Your task to perform on an android device: uninstall "DoorDash - Food Delivery" Image 0: 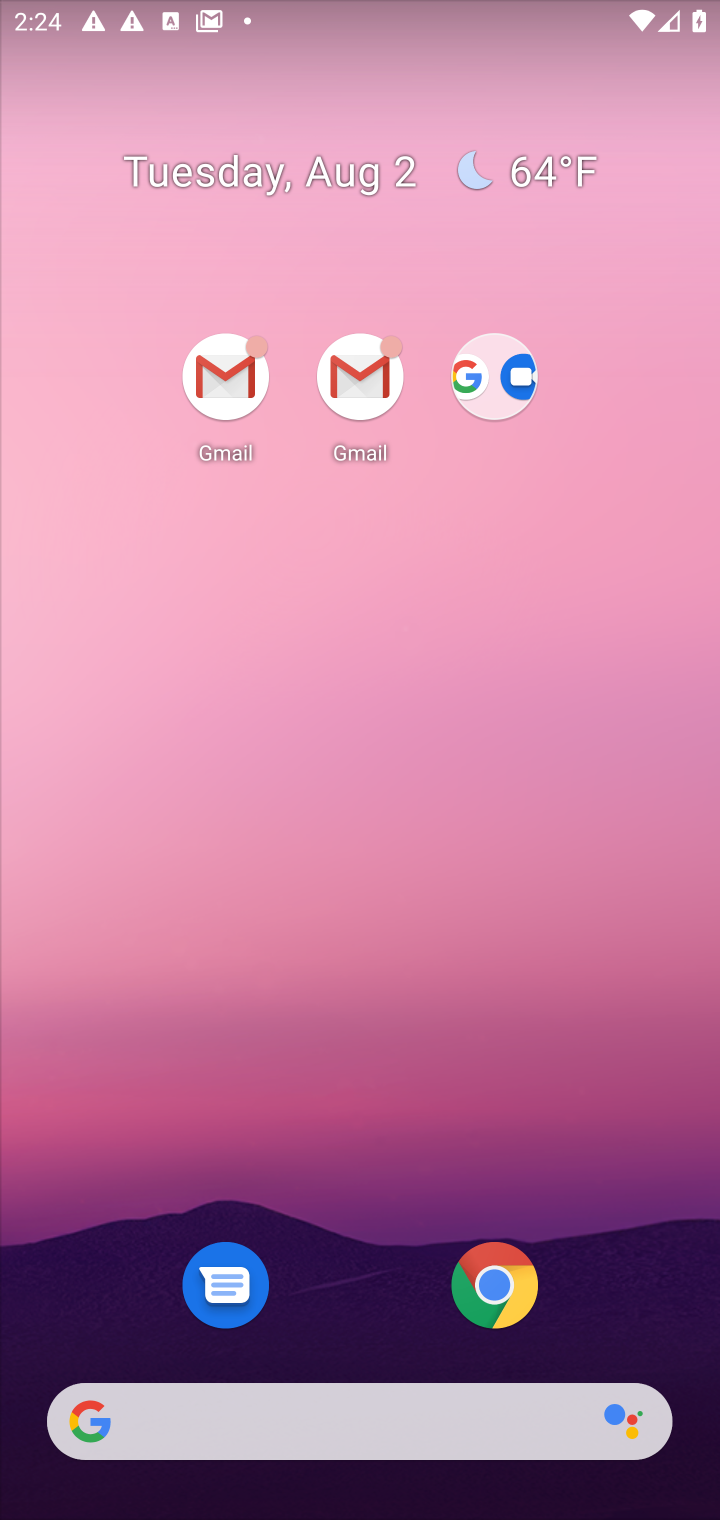
Step 0: drag from (357, 1334) to (258, 185)
Your task to perform on an android device: uninstall "DoorDash - Food Delivery" Image 1: 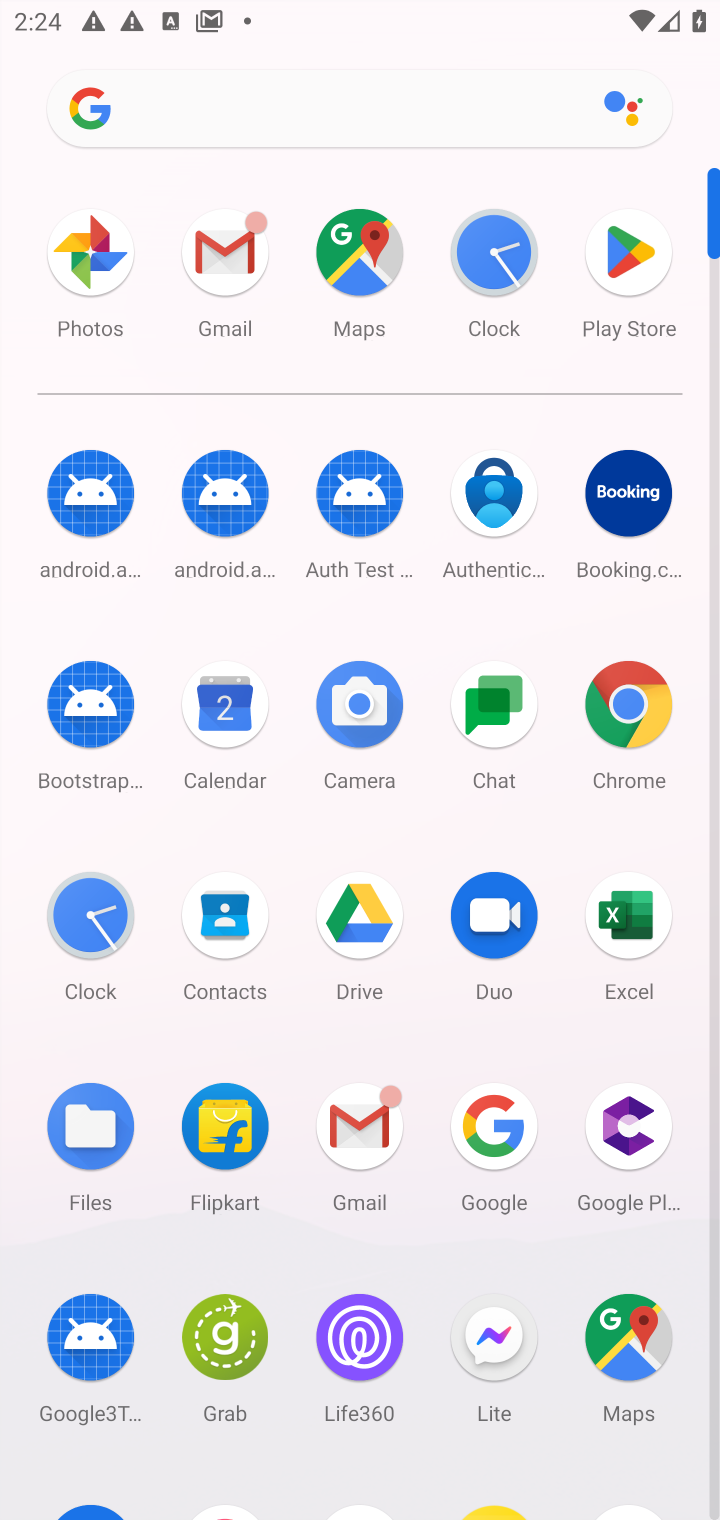
Step 1: drag from (441, 1247) to (403, 340)
Your task to perform on an android device: uninstall "DoorDash - Food Delivery" Image 2: 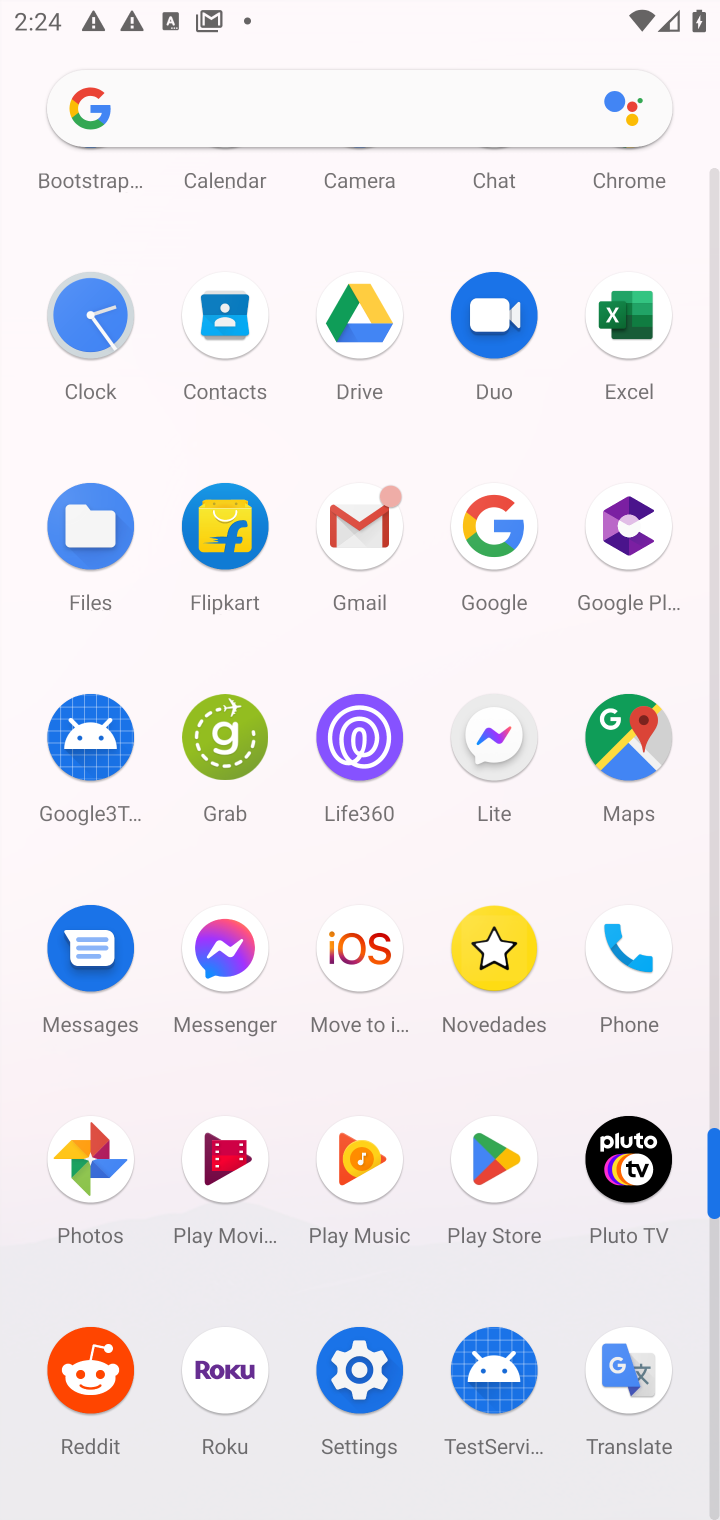
Step 2: click (488, 1169)
Your task to perform on an android device: uninstall "DoorDash - Food Delivery" Image 3: 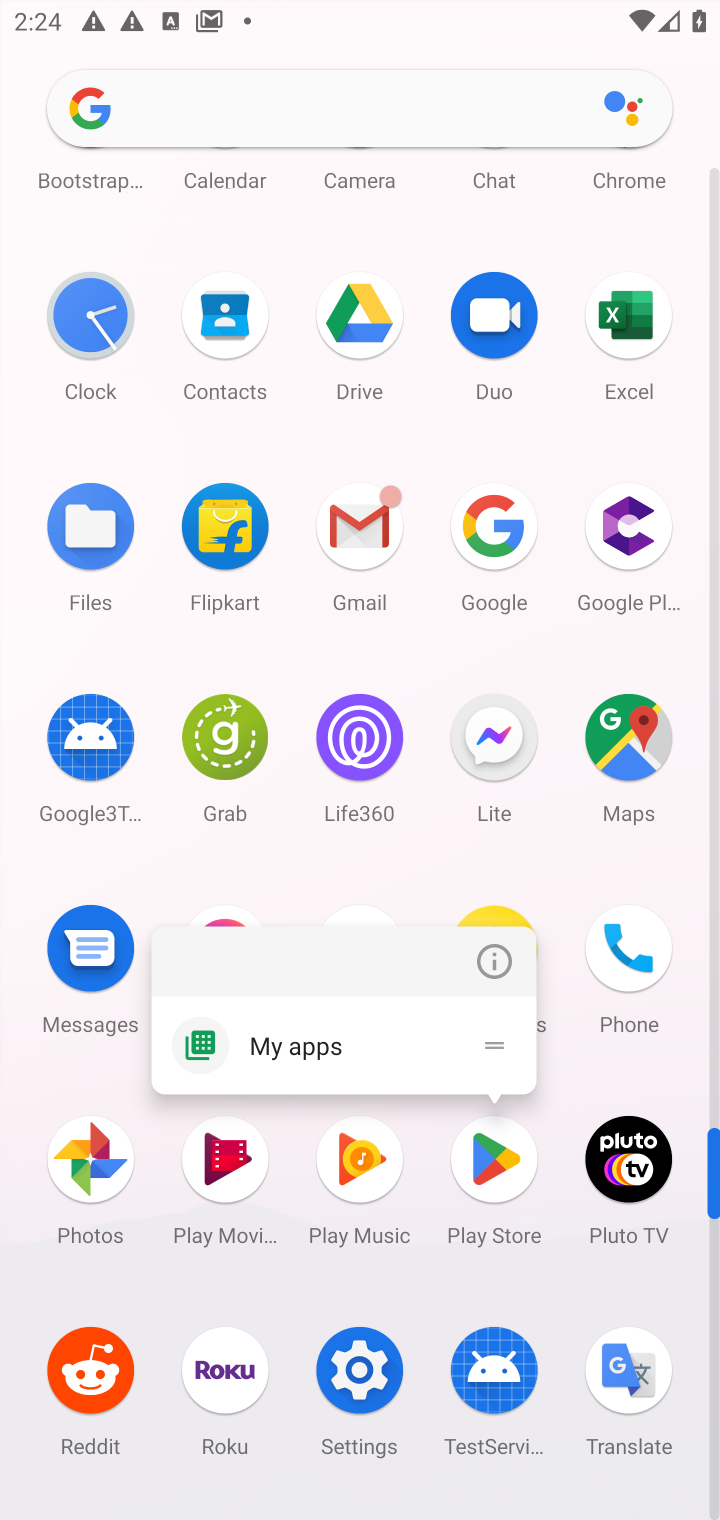
Step 3: click (478, 1162)
Your task to perform on an android device: uninstall "DoorDash - Food Delivery" Image 4: 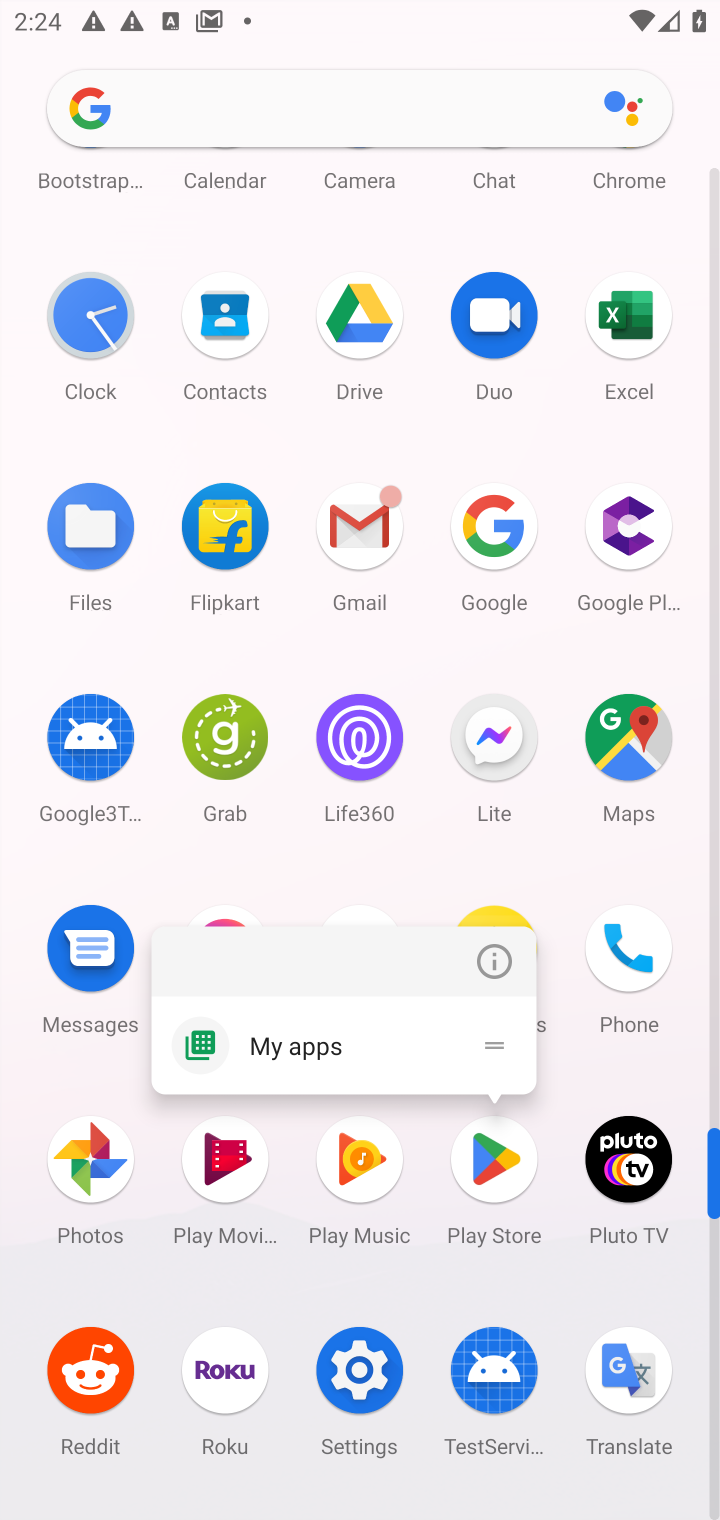
Step 4: click (480, 1160)
Your task to perform on an android device: uninstall "DoorDash - Food Delivery" Image 5: 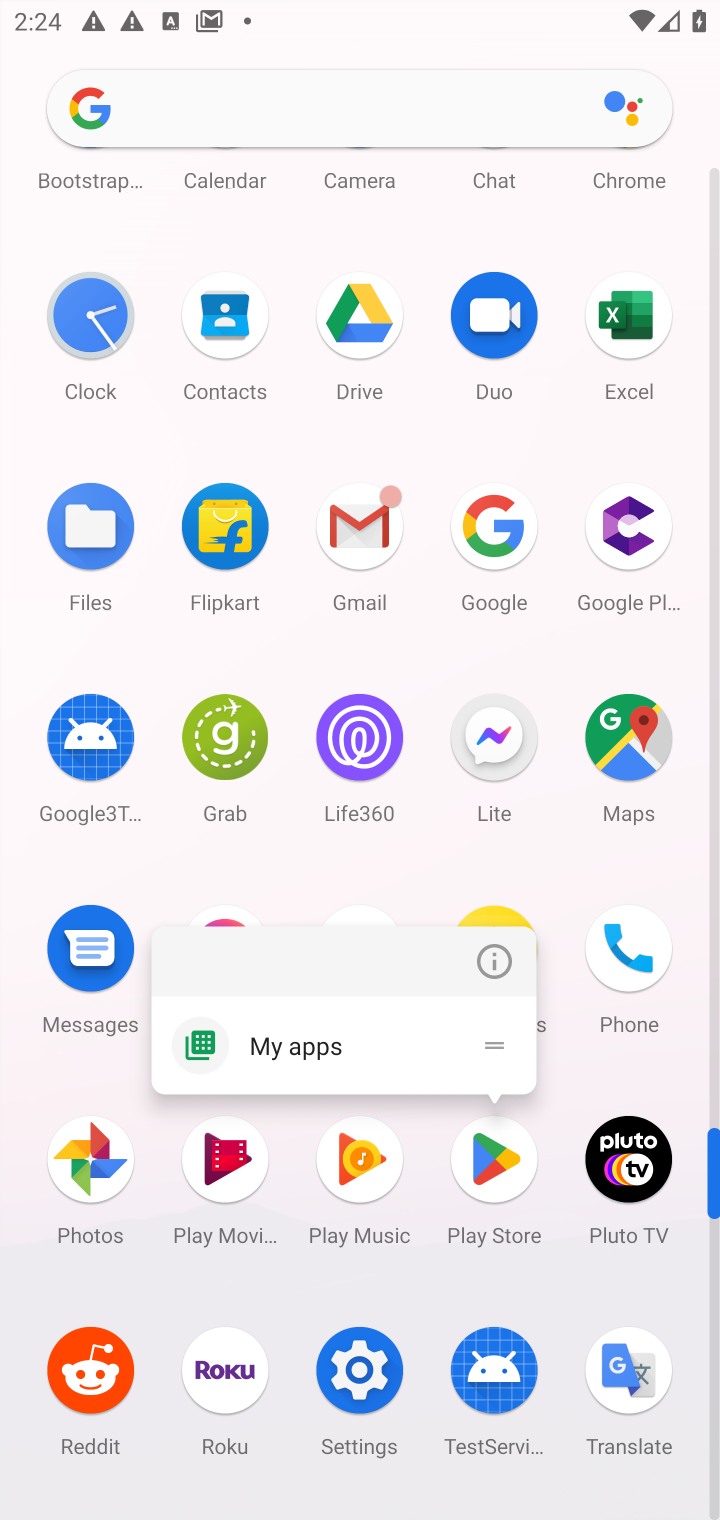
Step 5: click (494, 1161)
Your task to perform on an android device: uninstall "DoorDash - Food Delivery" Image 6: 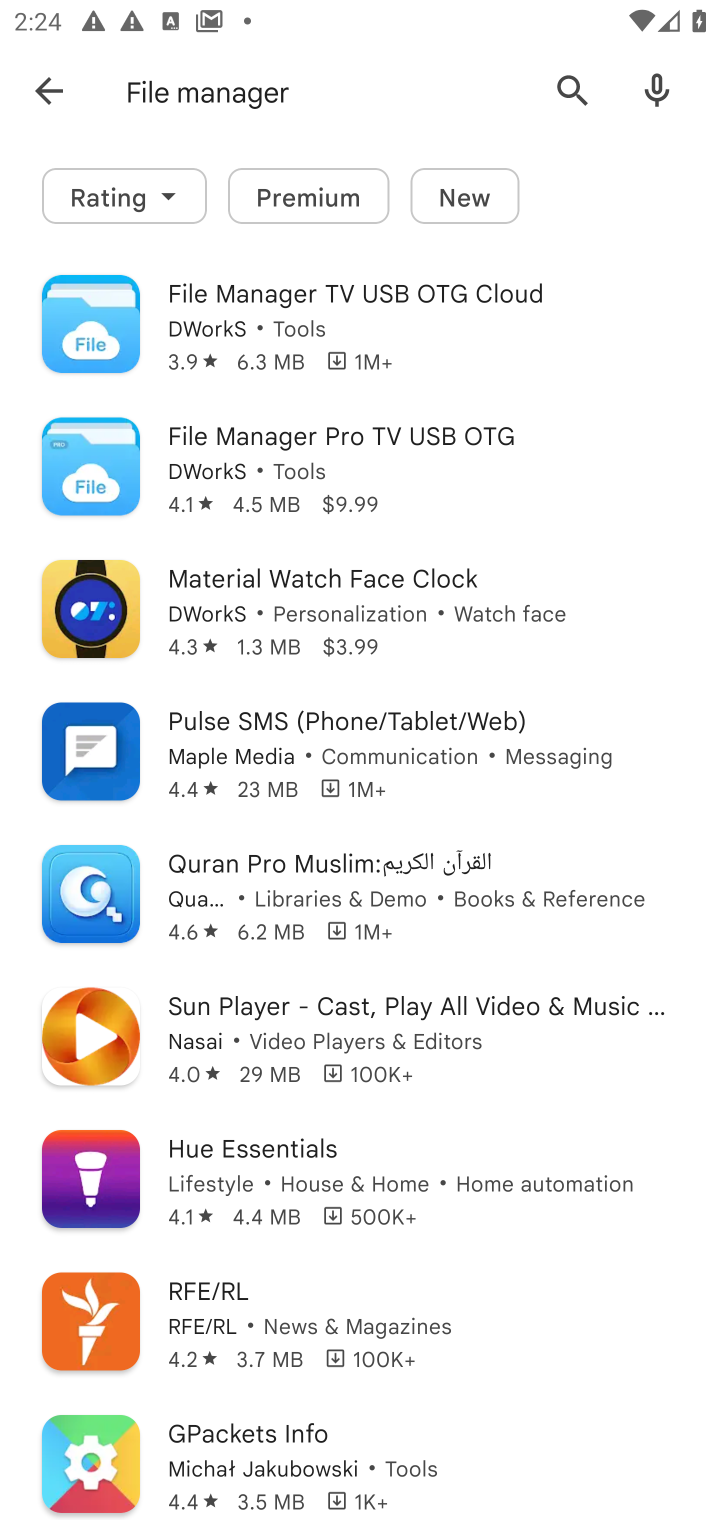
Step 6: click (218, 81)
Your task to perform on an android device: uninstall "DoorDash - Food Delivery" Image 7: 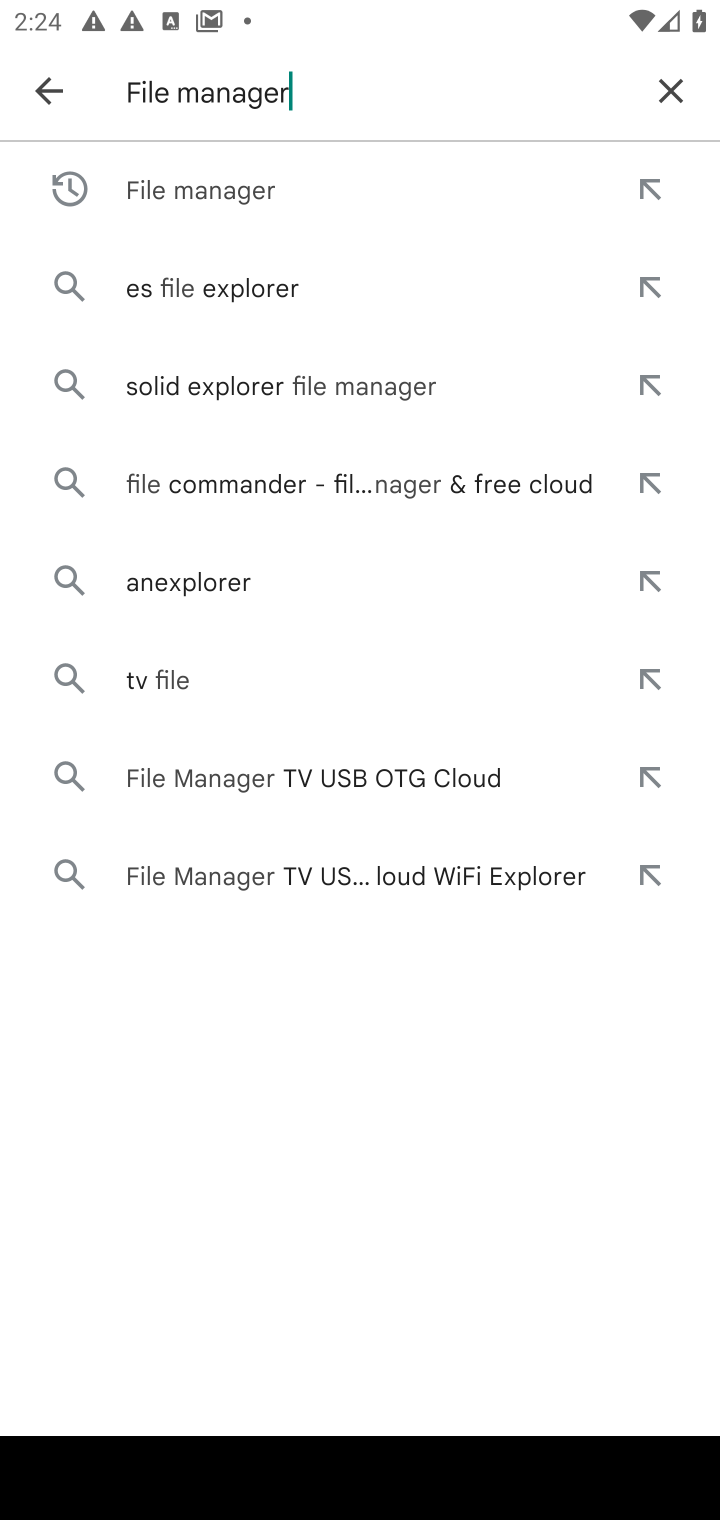
Step 7: click (670, 80)
Your task to perform on an android device: uninstall "DoorDash - Food Delivery" Image 8: 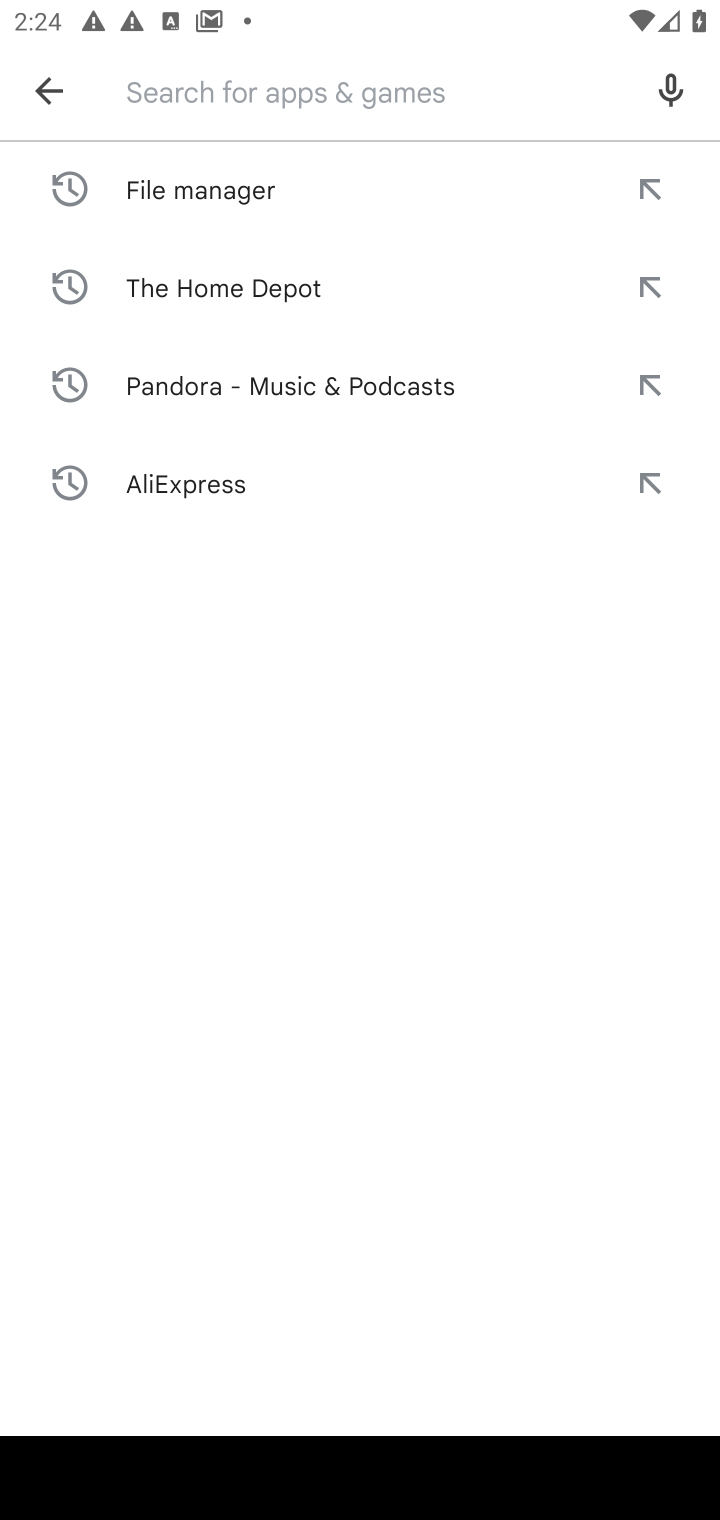
Step 8: type ""
Your task to perform on an android device: uninstall "DoorDash - Food Delivery" Image 9: 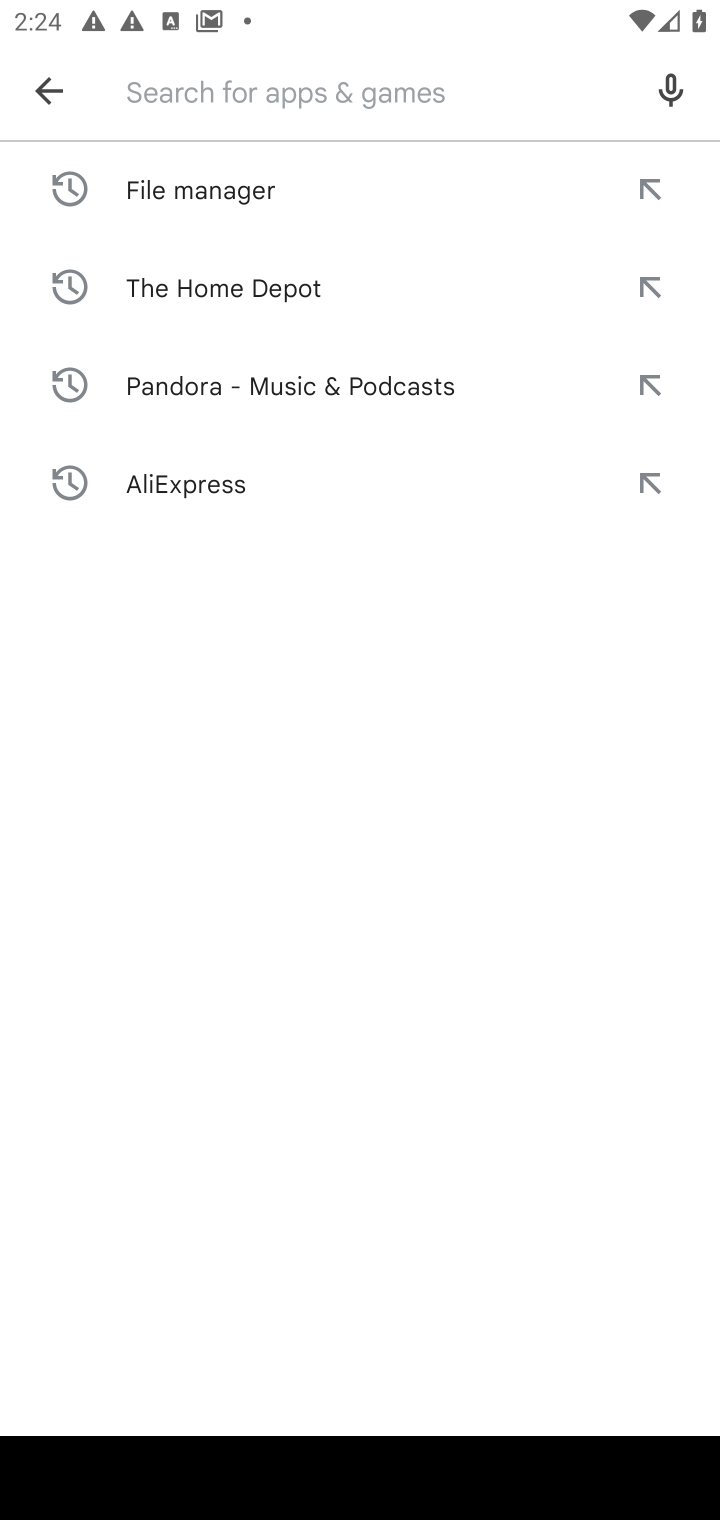
Step 9: type "DoorDash - Food Delivery"
Your task to perform on an android device: uninstall "DoorDash - Food Delivery" Image 10: 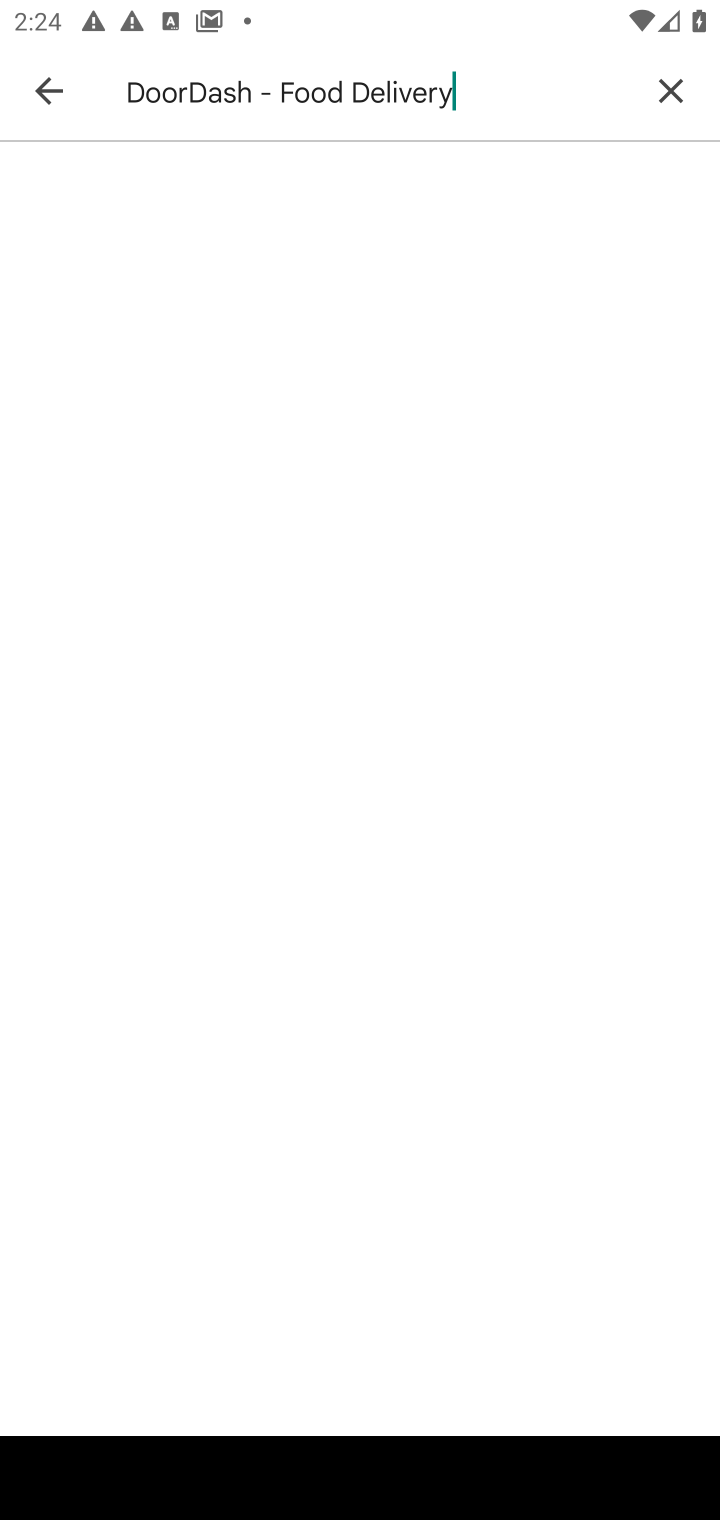
Step 10: press enter
Your task to perform on an android device: uninstall "DoorDash - Food Delivery" Image 11: 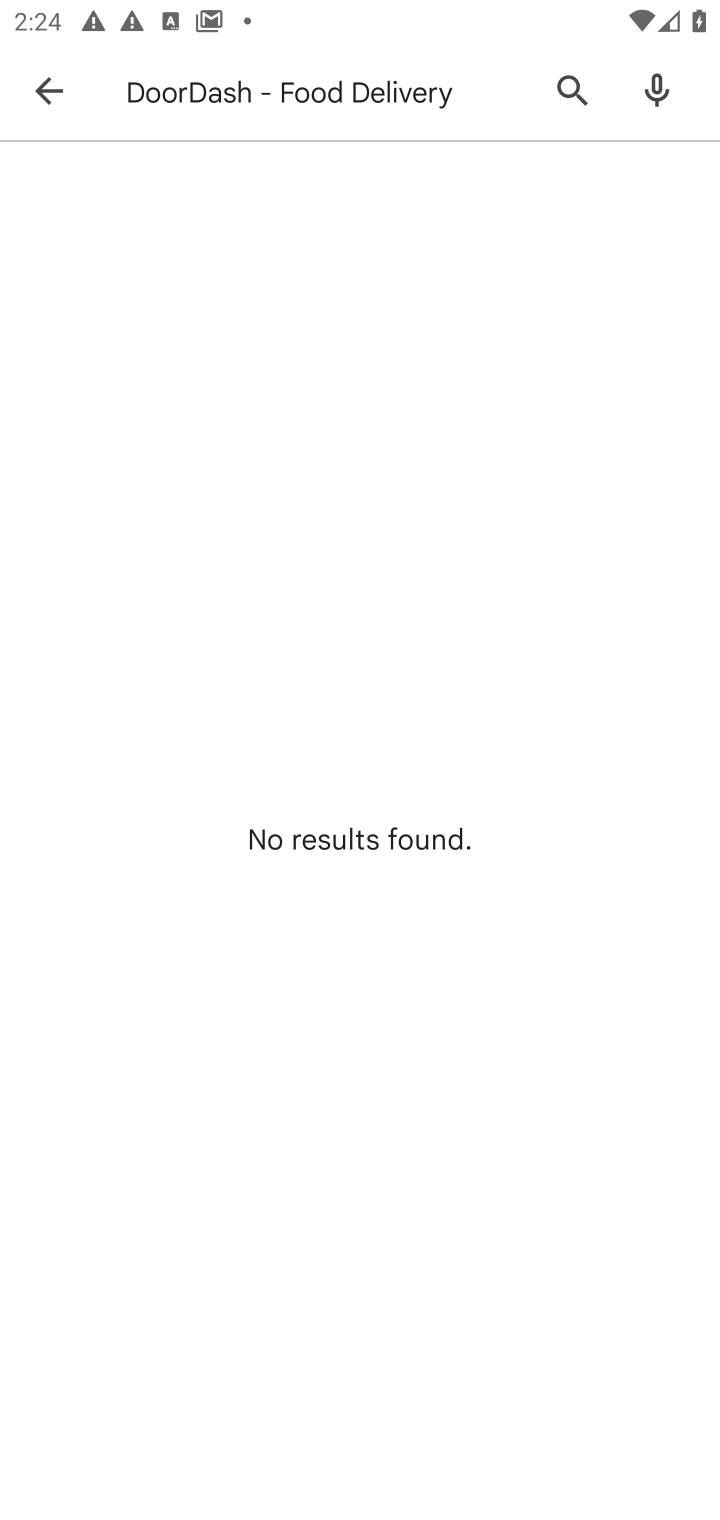
Step 11: task complete